Your task to perform on an android device: change the clock style Image 0: 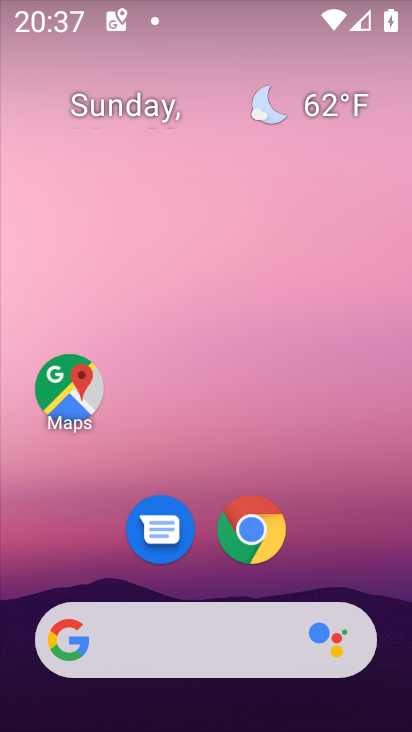
Step 0: drag from (284, 710) to (106, 151)
Your task to perform on an android device: change the clock style Image 1: 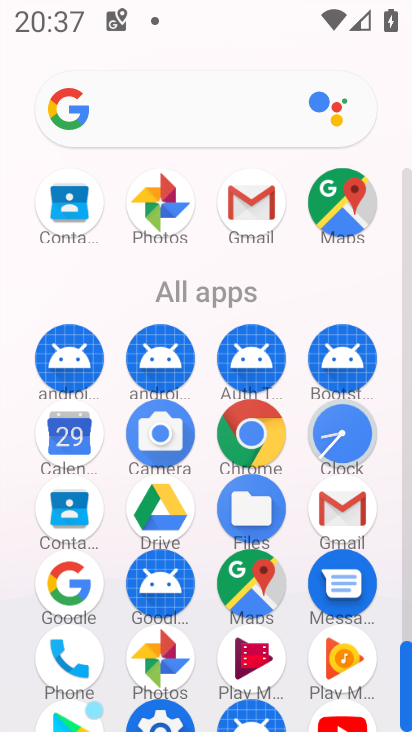
Step 1: click (335, 432)
Your task to perform on an android device: change the clock style Image 2: 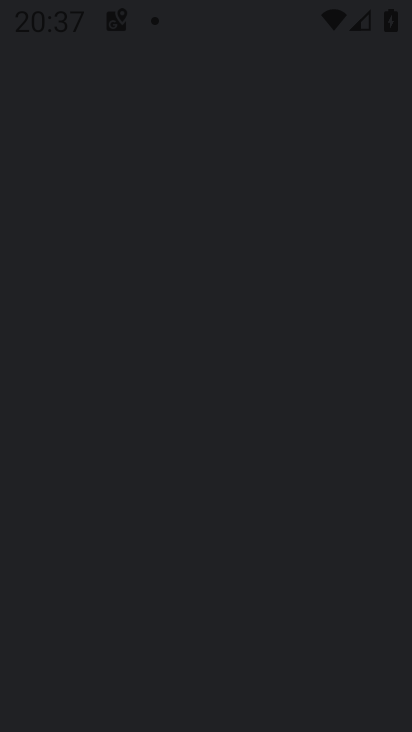
Step 2: click (335, 432)
Your task to perform on an android device: change the clock style Image 3: 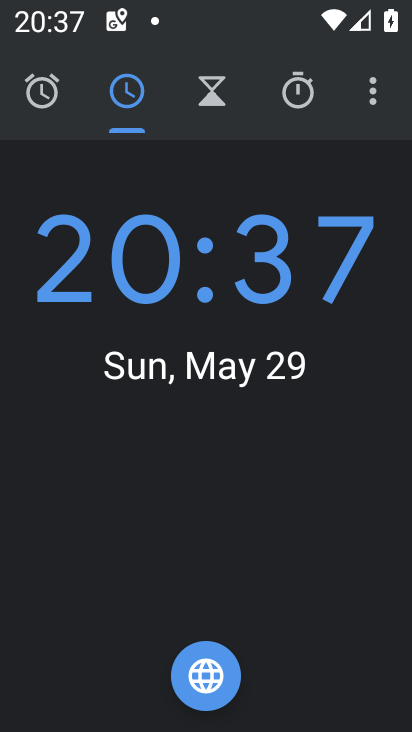
Step 3: click (336, 431)
Your task to perform on an android device: change the clock style Image 4: 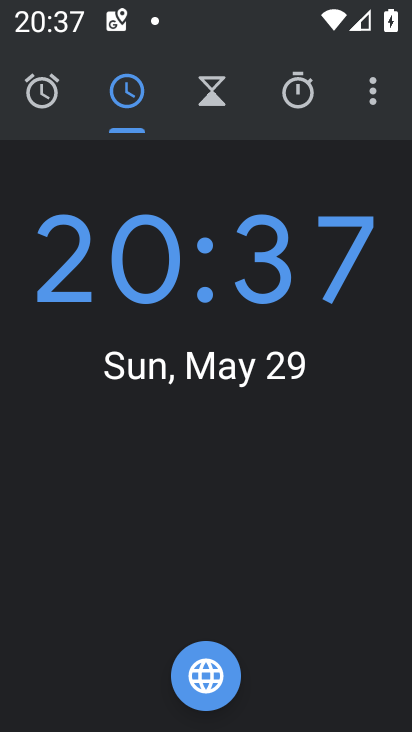
Step 4: click (362, 104)
Your task to perform on an android device: change the clock style Image 5: 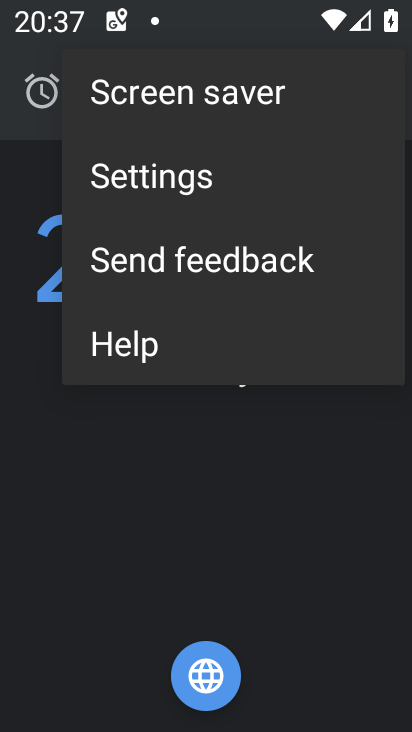
Step 5: click (170, 181)
Your task to perform on an android device: change the clock style Image 6: 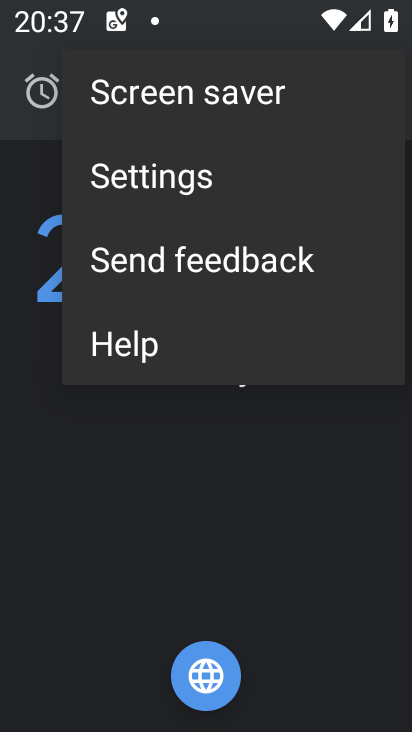
Step 6: click (168, 179)
Your task to perform on an android device: change the clock style Image 7: 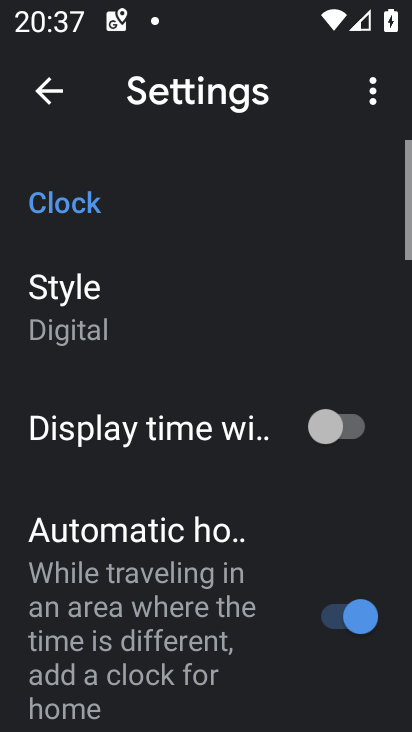
Step 7: click (150, 181)
Your task to perform on an android device: change the clock style Image 8: 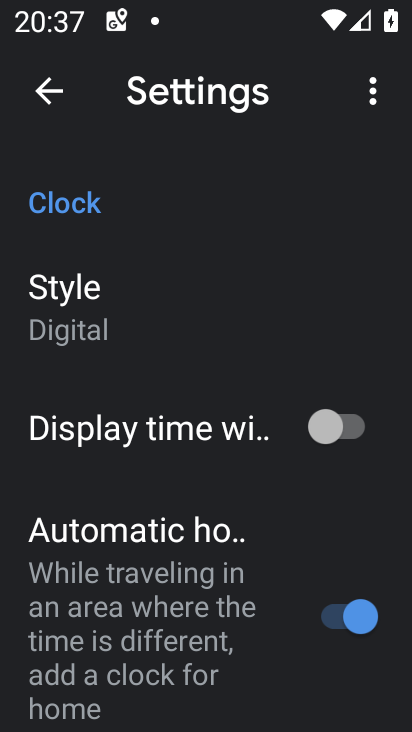
Step 8: click (131, 285)
Your task to perform on an android device: change the clock style Image 9: 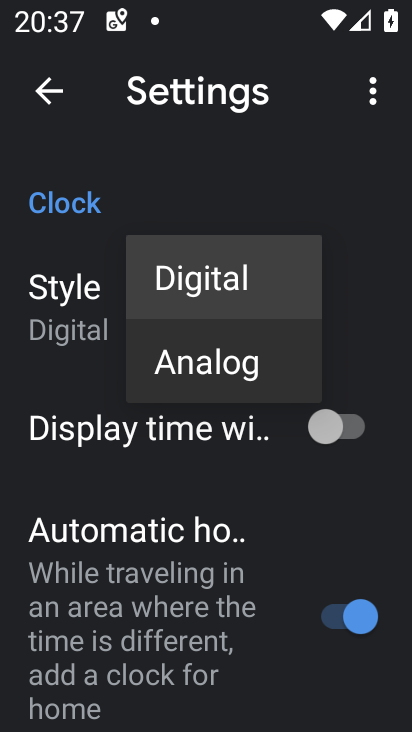
Step 9: click (226, 364)
Your task to perform on an android device: change the clock style Image 10: 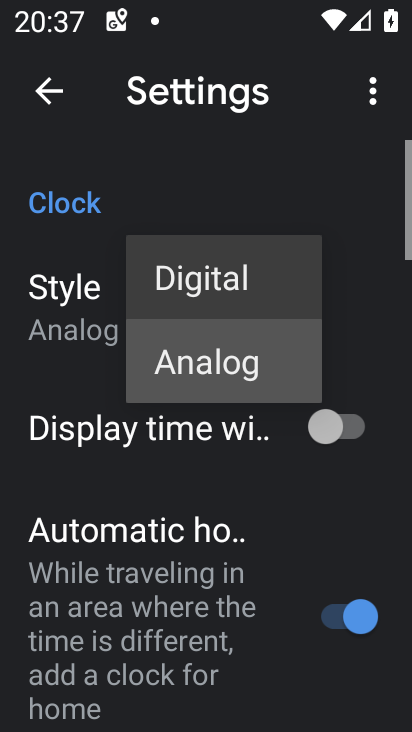
Step 10: click (225, 365)
Your task to perform on an android device: change the clock style Image 11: 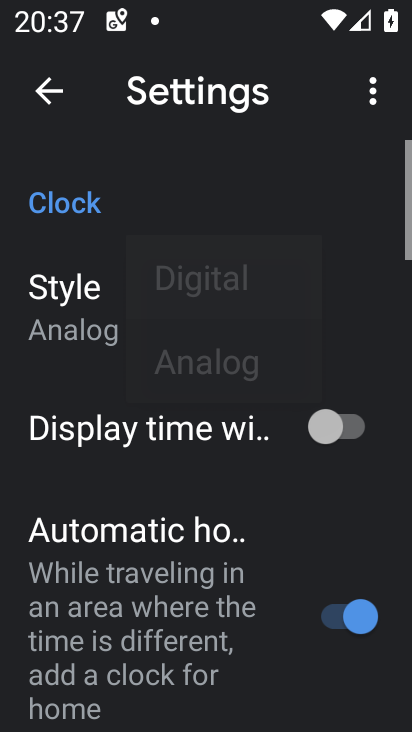
Step 11: click (225, 365)
Your task to perform on an android device: change the clock style Image 12: 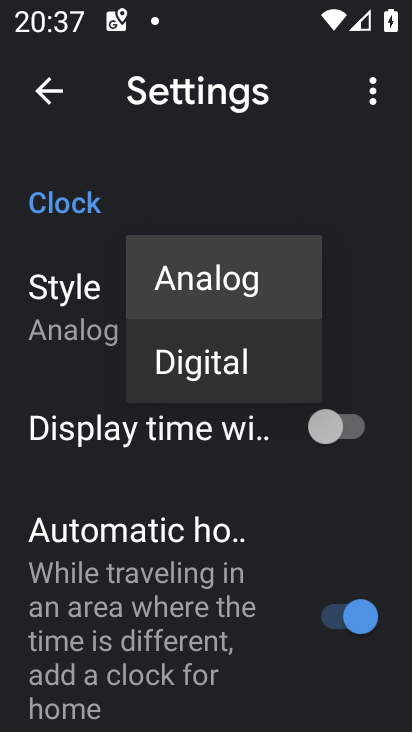
Step 12: click (359, 338)
Your task to perform on an android device: change the clock style Image 13: 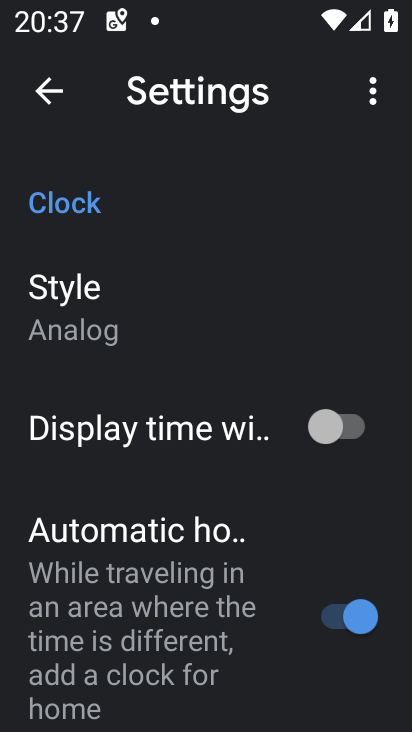
Step 13: task complete